Your task to perform on an android device: Go to Google maps Image 0: 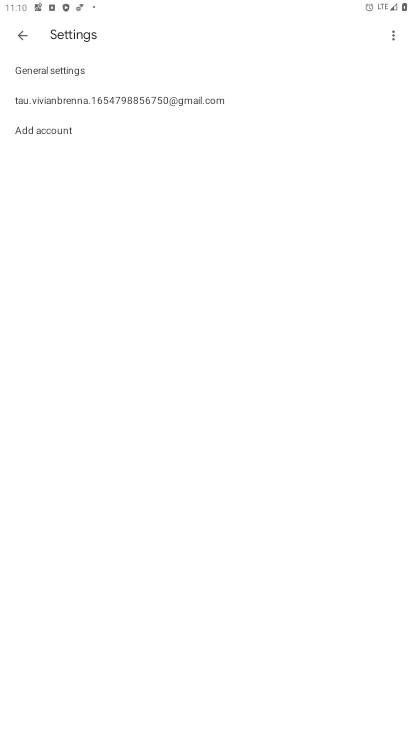
Step 0: press home button
Your task to perform on an android device: Go to Google maps Image 1: 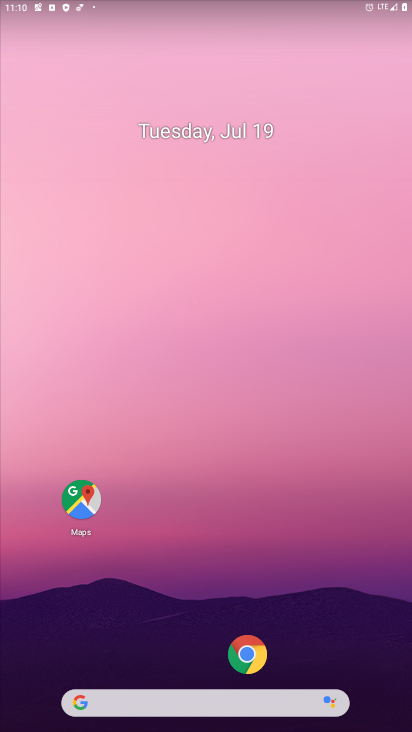
Step 1: click (84, 496)
Your task to perform on an android device: Go to Google maps Image 2: 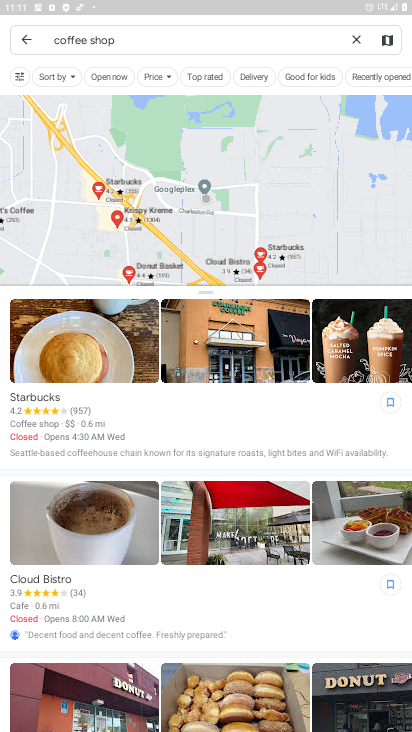
Step 2: task complete